Your task to perform on an android device: turn on priority inbox in the gmail app Image 0: 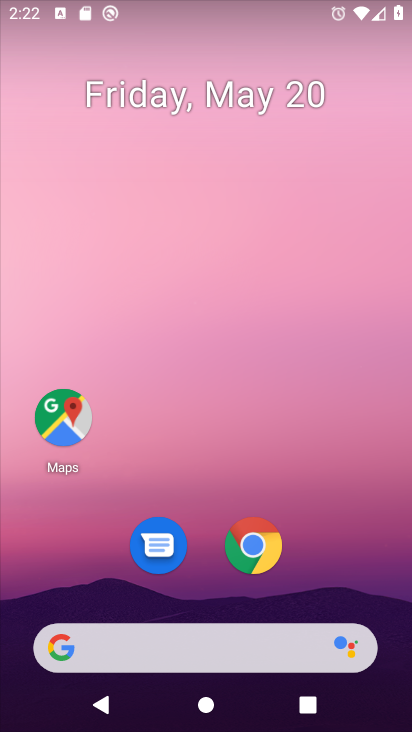
Step 0: drag from (290, 607) to (296, 225)
Your task to perform on an android device: turn on priority inbox in the gmail app Image 1: 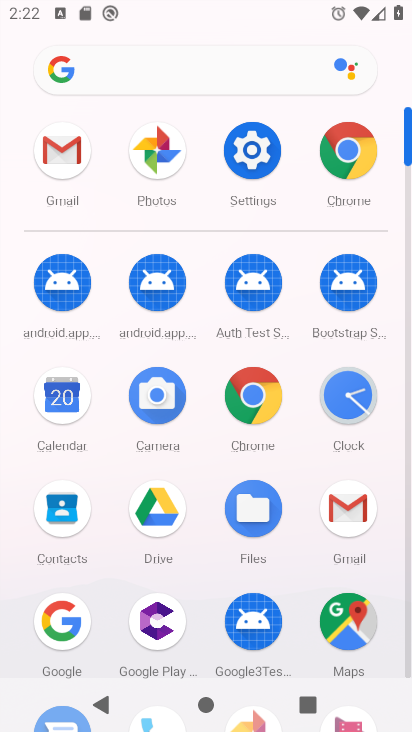
Step 1: click (351, 515)
Your task to perform on an android device: turn on priority inbox in the gmail app Image 2: 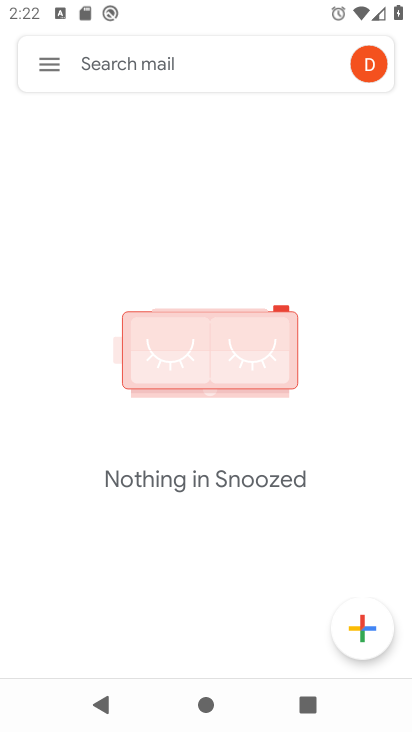
Step 2: click (56, 58)
Your task to perform on an android device: turn on priority inbox in the gmail app Image 3: 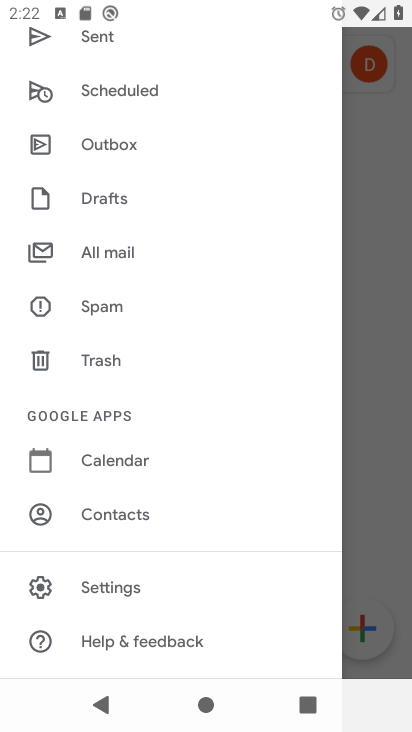
Step 3: click (115, 584)
Your task to perform on an android device: turn on priority inbox in the gmail app Image 4: 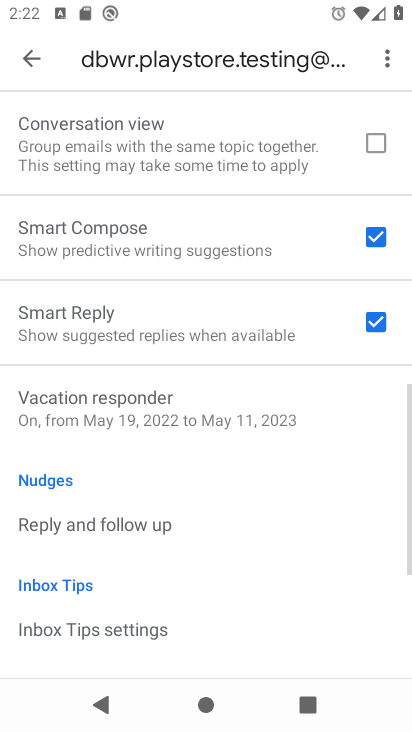
Step 4: task complete